Your task to perform on an android device: Open my contact list Image 0: 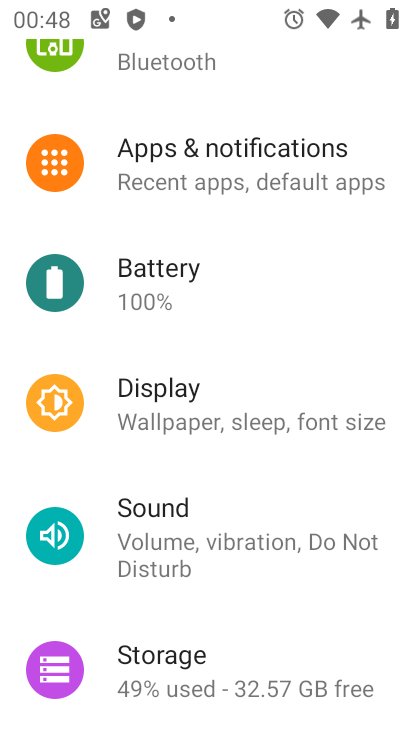
Step 0: press home button
Your task to perform on an android device: Open my contact list Image 1: 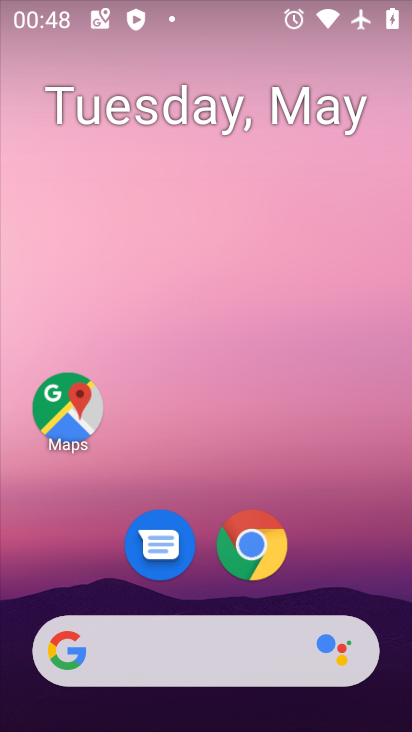
Step 1: drag from (318, 593) to (374, 46)
Your task to perform on an android device: Open my contact list Image 2: 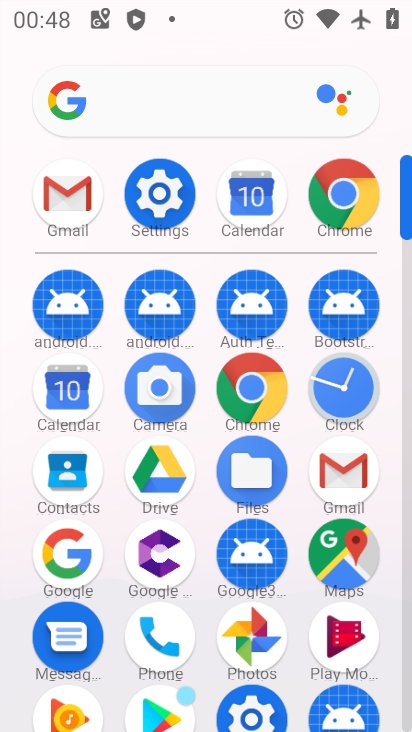
Step 2: click (59, 482)
Your task to perform on an android device: Open my contact list Image 3: 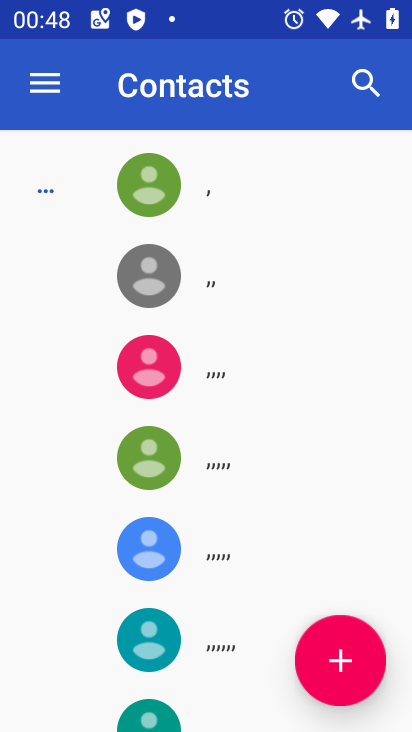
Step 3: task complete